Your task to perform on an android device: toggle airplane mode Image 0: 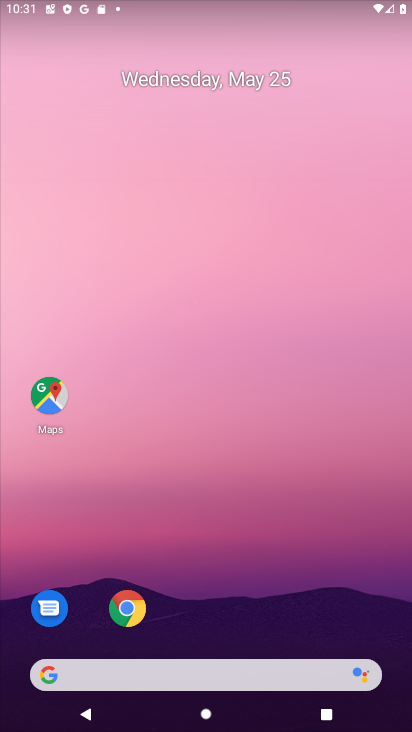
Step 0: drag from (269, 380) to (255, 0)
Your task to perform on an android device: toggle airplane mode Image 1: 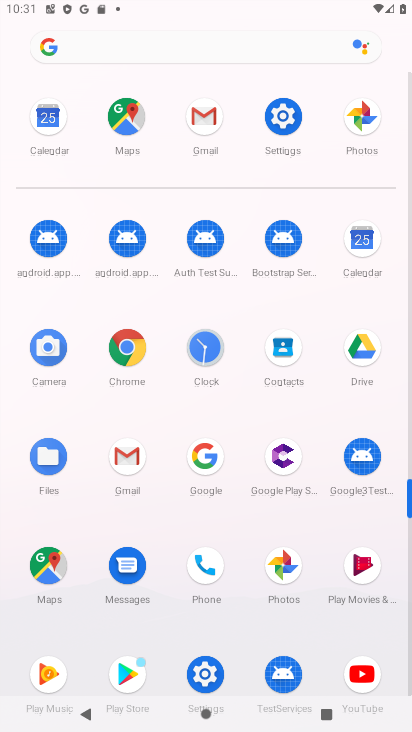
Step 1: click (279, 130)
Your task to perform on an android device: toggle airplane mode Image 2: 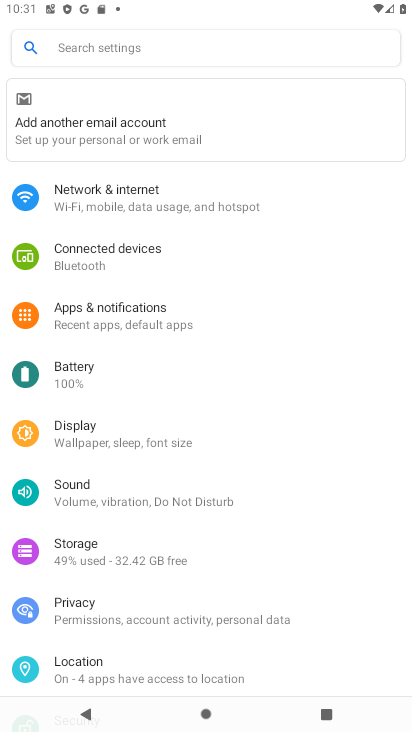
Step 2: click (98, 200)
Your task to perform on an android device: toggle airplane mode Image 3: 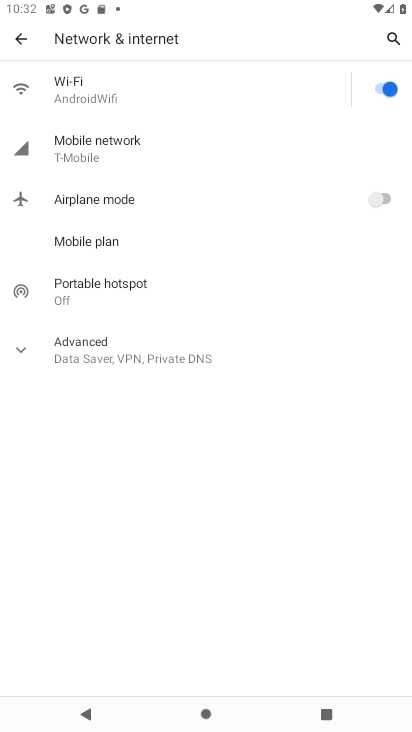
Step 3: click (386, 203)
Your task to perform on an android device: toggle airplane mode Image 4: 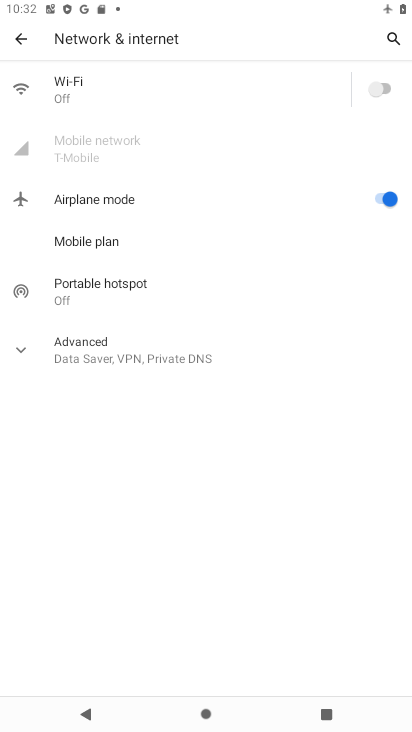
Step 4: task complete